Your task to perform on an android device: open a new tab in the chrome app Image 0: 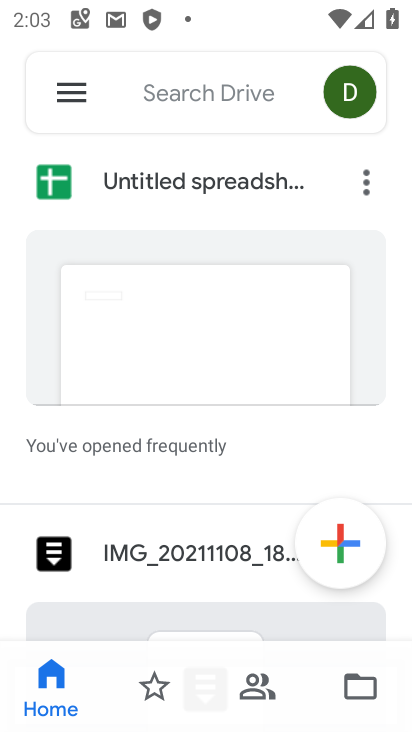
Step 0: press home button
Your task to perform on an android device: open a new tab in the chrome app Image 1: 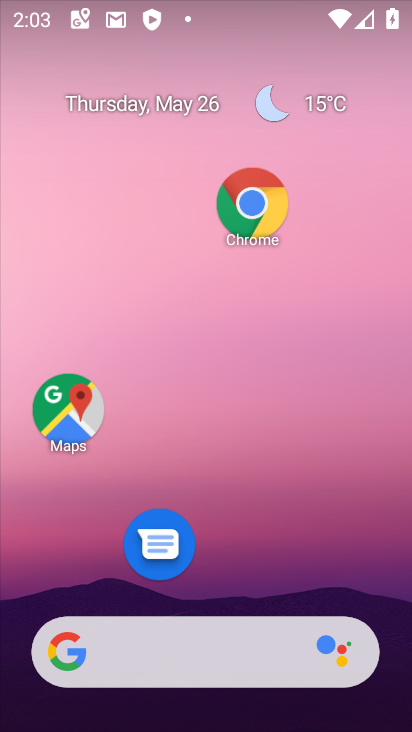
Step 1: click (273, 219)
Your task to perform on an android device: open a new tab in the chrome app Image 2: 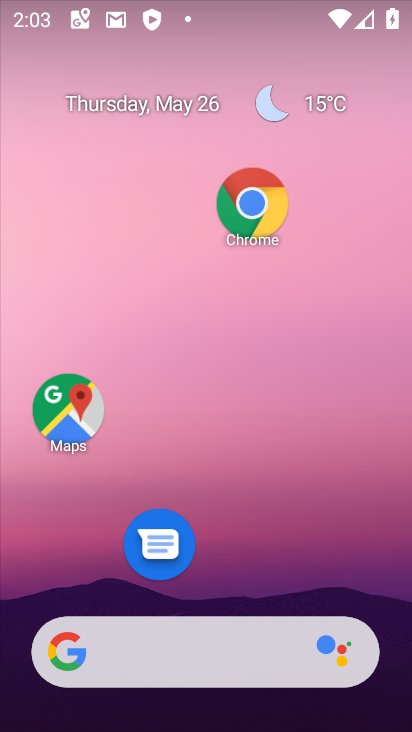
Step 2: click (273, 219)
Your task to perform on an android device: open a new tab in the chrome app Image 3: 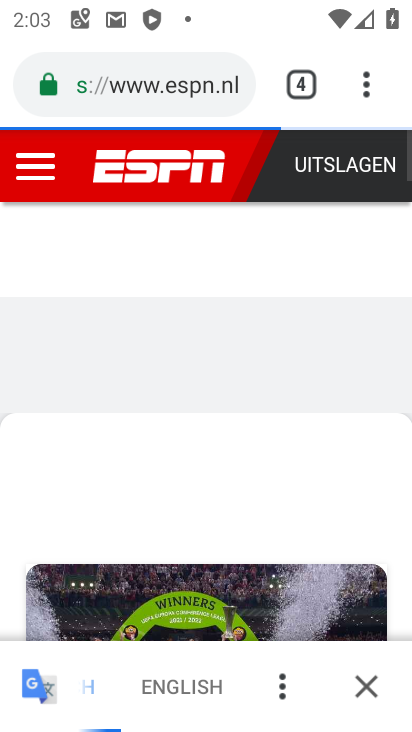
Step 3: click (364, 77)
Your task to perform on an android device: open a new tab in the chrome app Image 4: 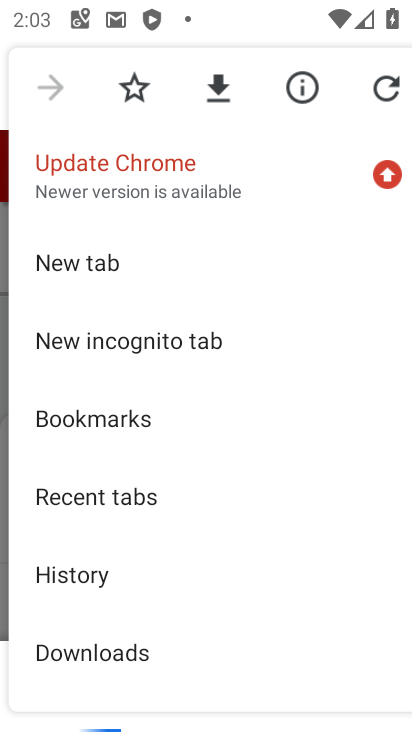
Step 4: click (85, 265)
Your task to perform on an android device: open a new tab in the chrome app Image 5: 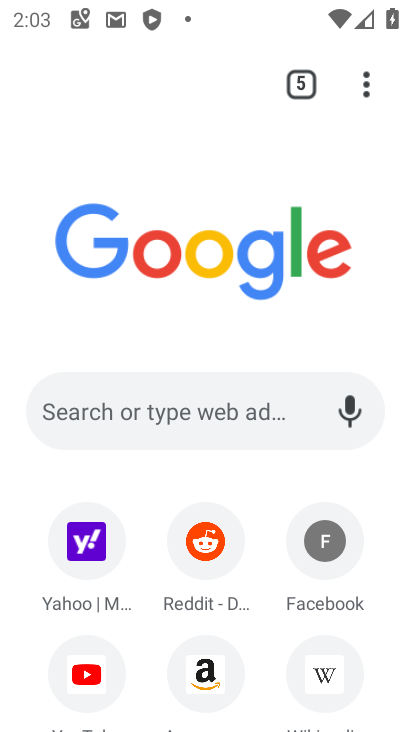
Step 5: task complete